Your task to perform on an android device: turn off notifications settings in the gmail app Image 0: 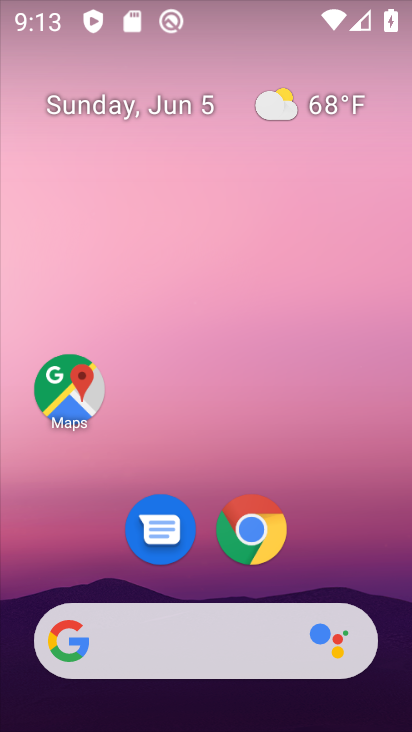
Step 0: drag from (152, 573) to (269, 8)
Your task to perform on an android device: turn off notifications settings in the gmail app Image 1: 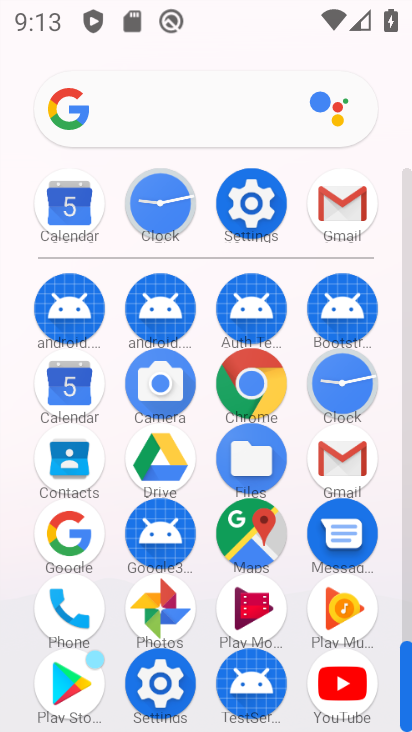
Step 1: click (356, 445)
Your task to perform on an android device: turn off notifications settings in the gmail app Image 2: 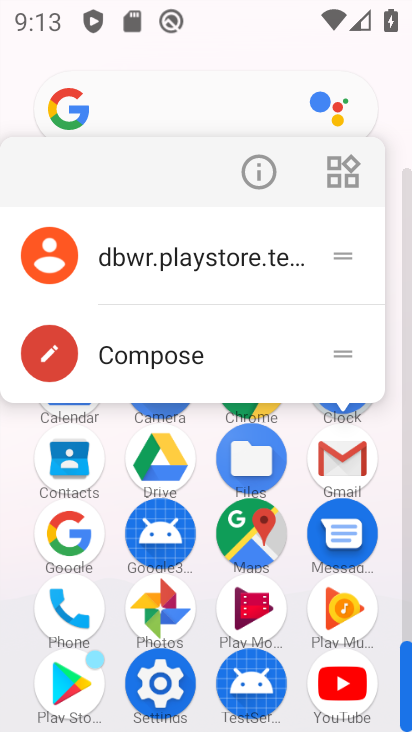
Step 2: click (270, 171)
Your task to perform on an android device: turn off notifications settings in the gmail app Image 3: 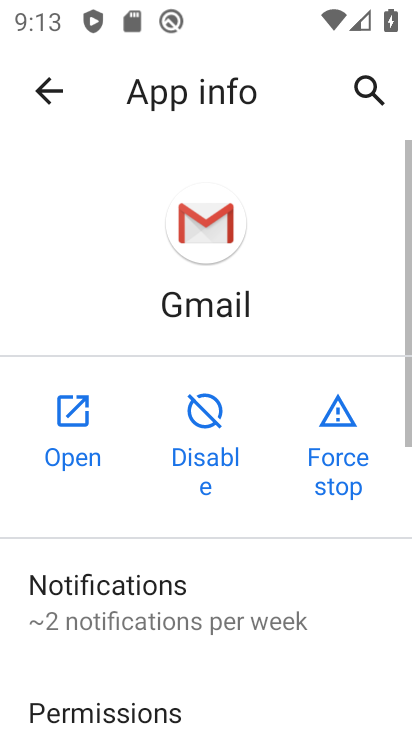
Step 3: click (252, 604)
Your task to perform on an android device: turn off notifications settings in the gmail app Image 4: 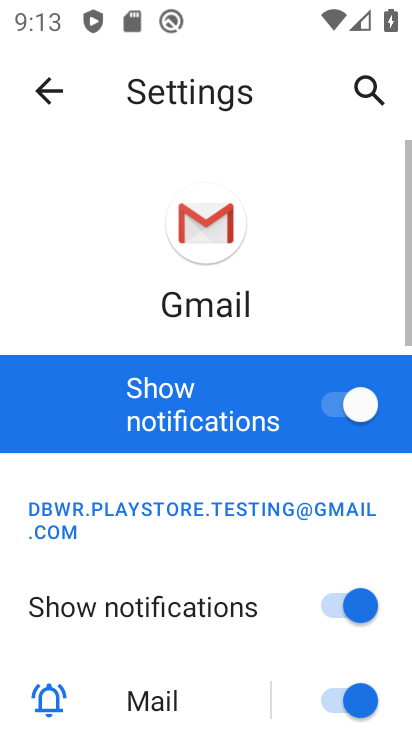
Step 4: click (366, 401)
Your task to perform on an android device: turn off notifications settings in the gmail app Image 5: 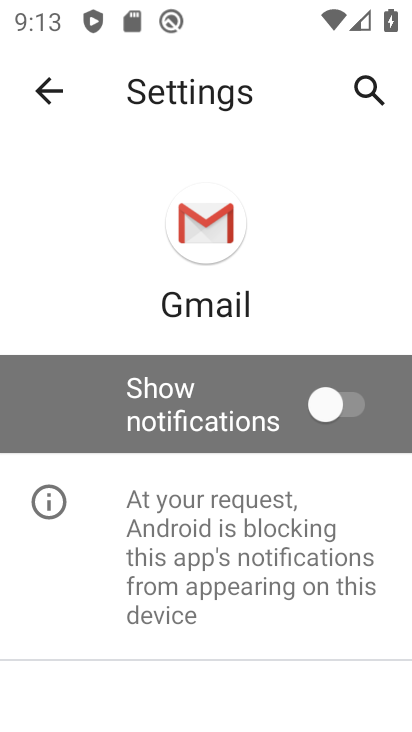
Step 5: task complete